Your task to perform on an android device: move an email to a new category in the gmail app Image 0: 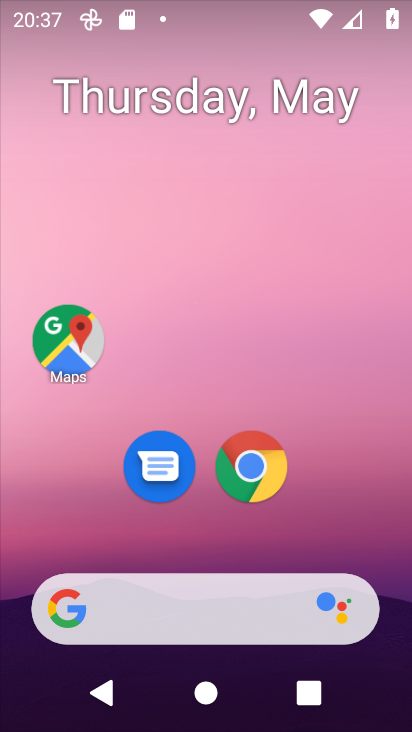
Step 0: drag from (368, 526) to (296, 20)
Your task to perform on an android device: move an email to a new category in the gmail app Image 1: 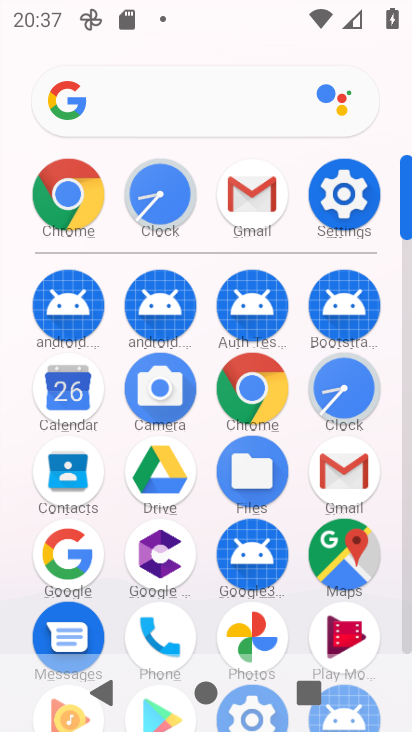
Step 1: click (263, 215)
Your task to perform on an android device: move an email to a new category in the gmail app Image 2: 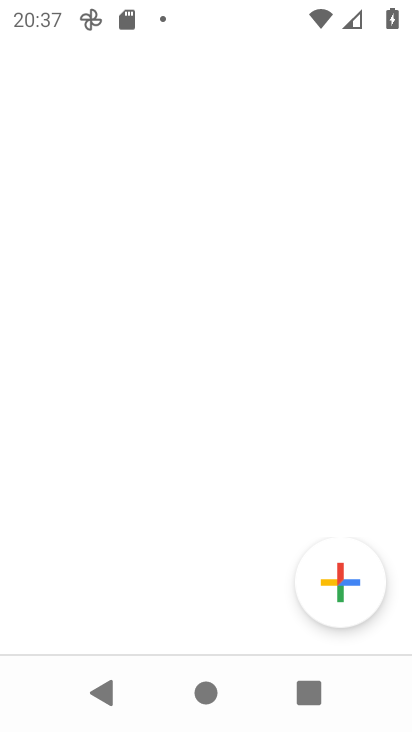
Step 2: task complete